Your task to perform on an android device: snooze an email in the gmail app Image 0: 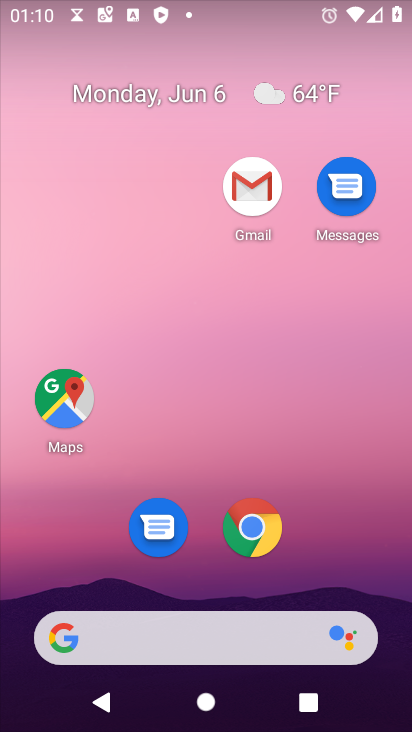
Step 0: drag from (339, 517) to (264, 26)
Your task to perform on an android device: snooze an email in the gmail app Image 1: 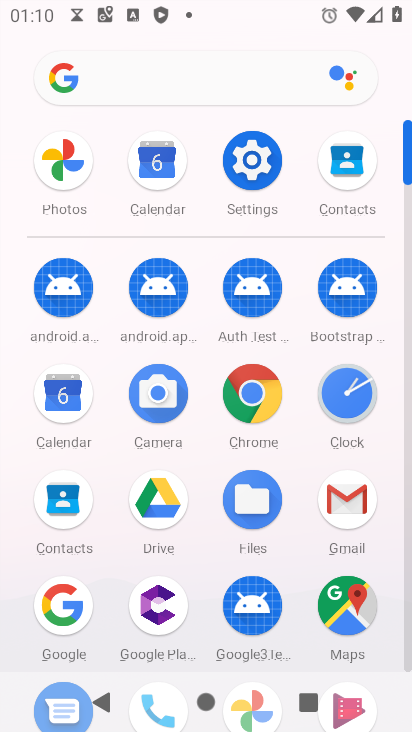
Step 1: click (352, 496)
Your task to perform on an android device: snooze an email in the gmail app Image 2: 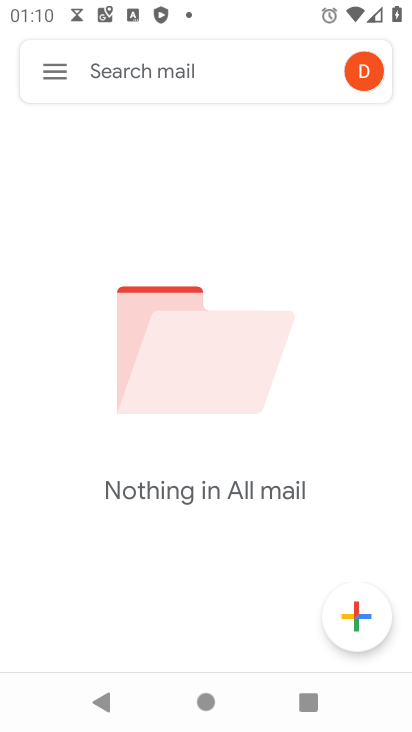
Step 2: click (45, 74)
Your task to perform on an android device: snooze an email in the gmail app Image 3: 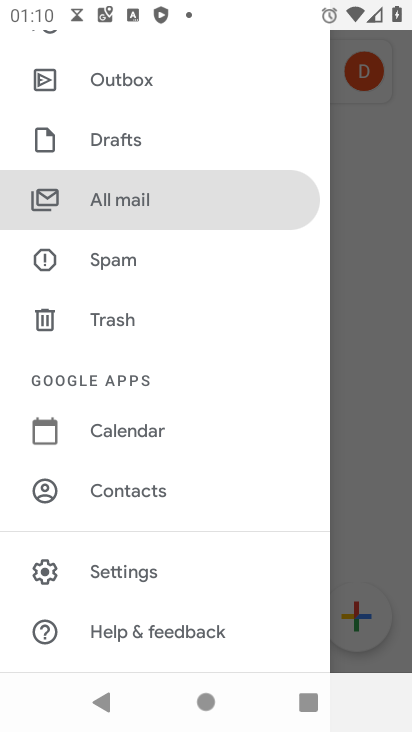
Step 3: drag from (146, 183) to (180, 545)
Your task to perform on an android device: snooze an email in the gmail app Image 4: 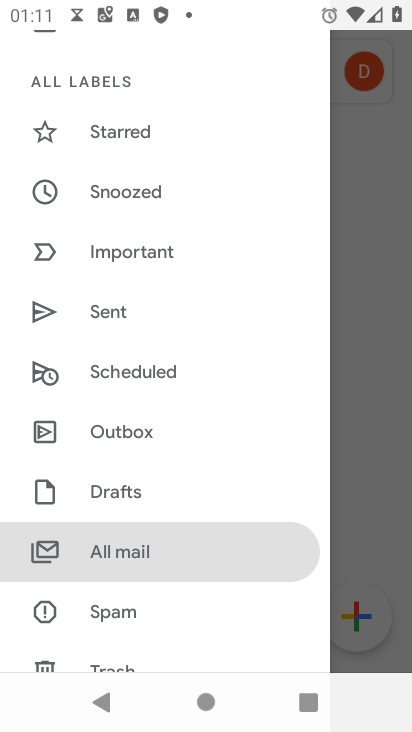
Step 4: click (136, 172)
Your task to perform on an android device: snooze an email in the gmail app Image 5: 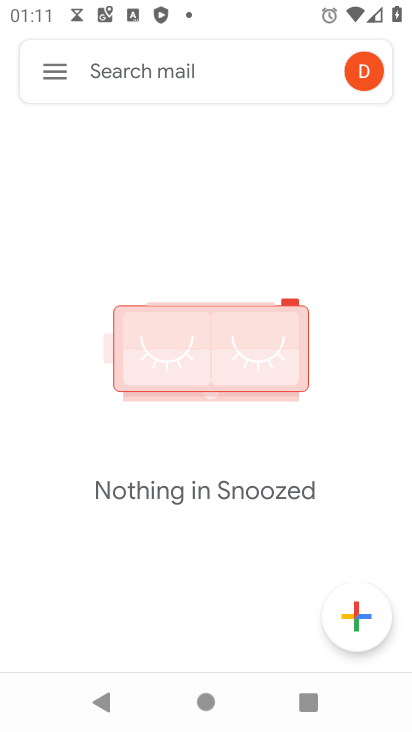
Step 5: task complete